Your task to perform on an android device: Go to ESPN.com Image 0: 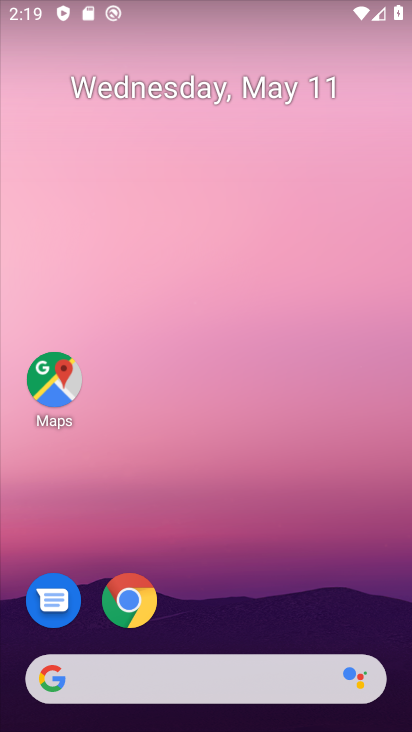
Step 0: click (239, 680)
Your task to perform on an android device: Go to ESPN.com Image 1: 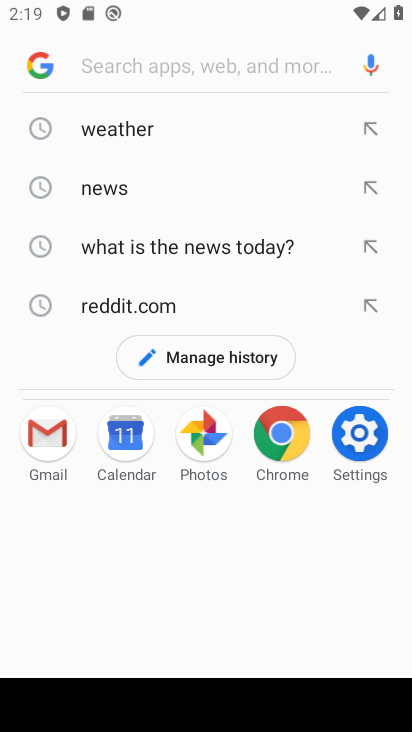
Step 1: type "ESPN.com"
Your task to perform on an android device: Go to ESPN.com Image 2: 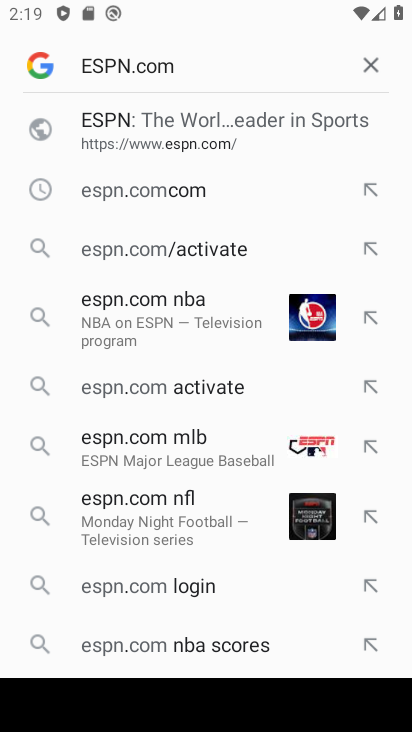
Step 2: click (190, 133)
Your task to perform on an android device: Go to ESPN.com Image 3: 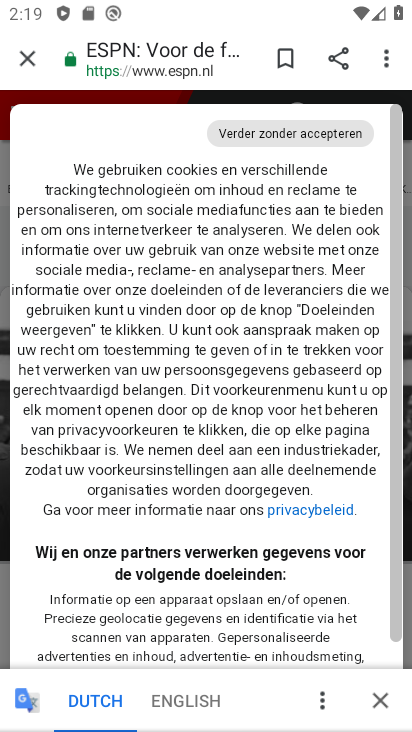
Step 3: task complete